Your task to perform on an android device: Go to network settings Image 0: 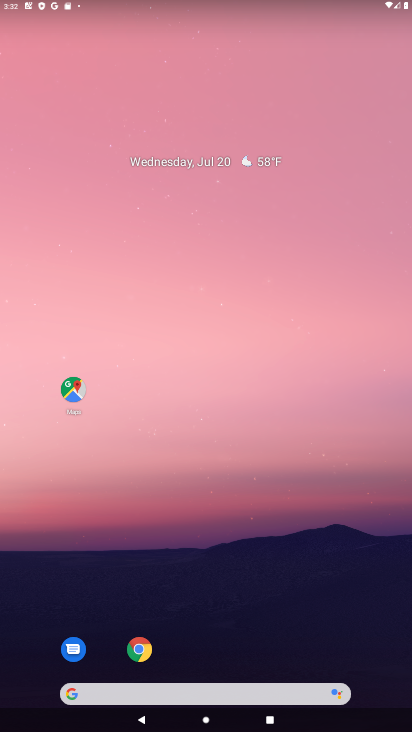
Step 0: drag from (189, 713) to (179, 92)
Your task to perform on an android device: Go to network settings Image 1: 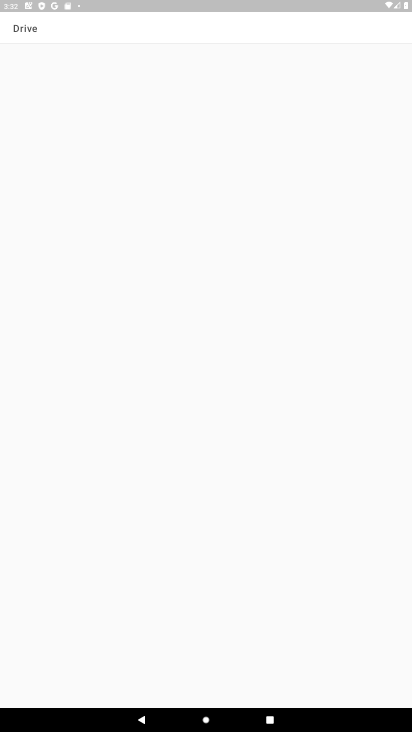
Step 1: press home button
Your task to perform on an android device: Go to network settings Image 2: 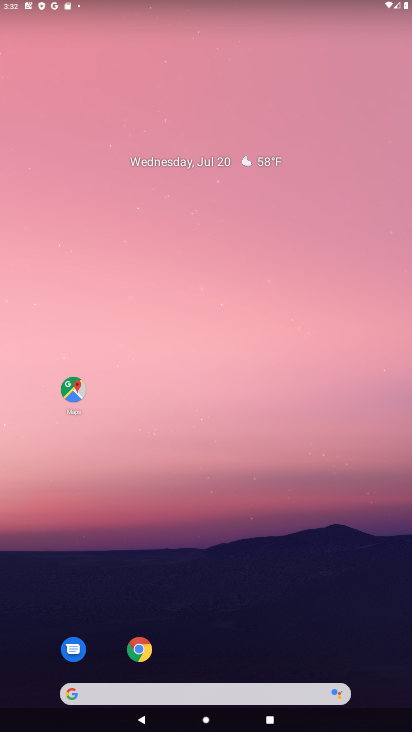
Step 2: drag from (218, 721) to (191, 121)
Your task to perform on an android device: Go to network settings Image 3: 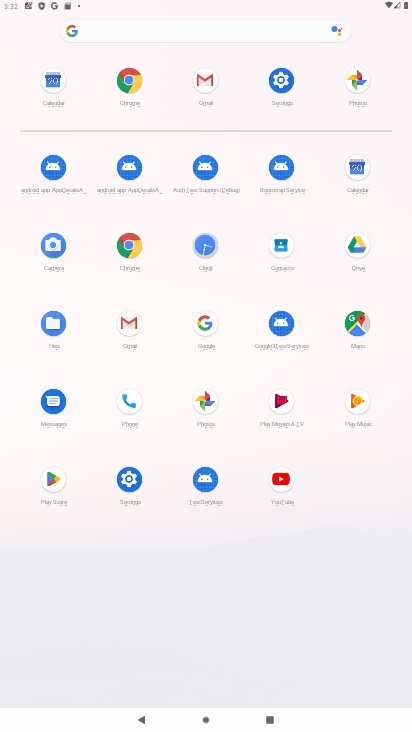
Step 3: click (289, 77)
Your task to perform on an android device: Go to network settings Image 4: 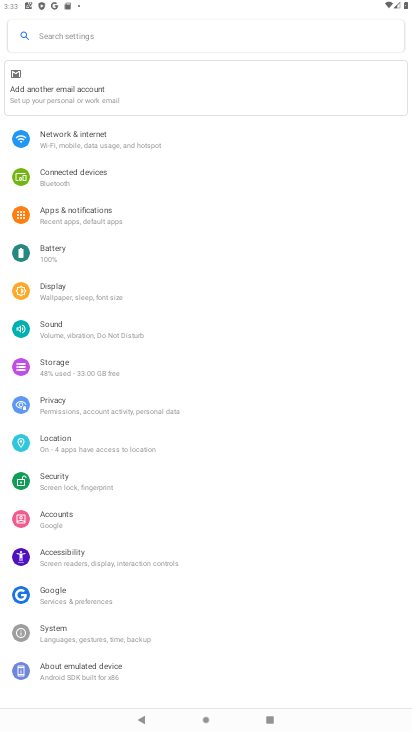
Step 4: click (92, 140)
Your task to perform on an android device: Go to network settings Image 5: 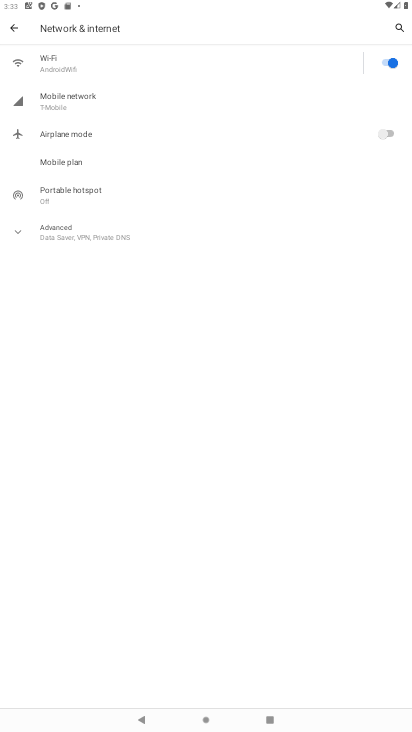
Step 5: click (72, 93)
Your task to perform on an android device: Go to network settings Image 6: 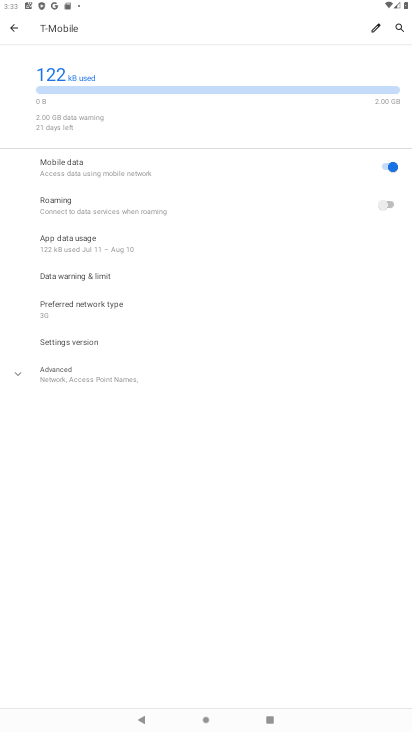
Step 6: task complete